Your task to perform on an android device: toggle priority inbox in the gmail app Image 0: 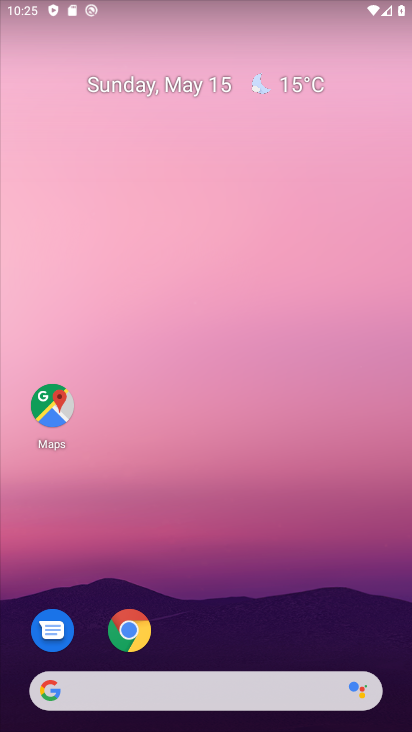
Step 0: drag from (222, 729) to (219, 193)
Your task to perform on an android device: toggle priority inbox in the gmail app Image 1: 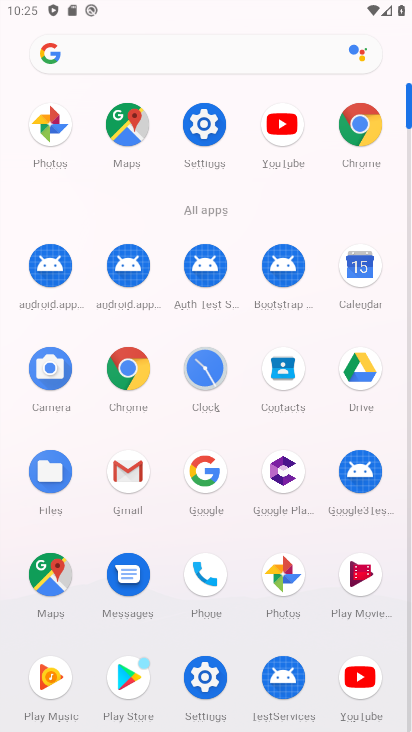
Step 1: click (131, 479)
Your task to perform on an android device: toggle priority inbox in the gmail app Image 2: 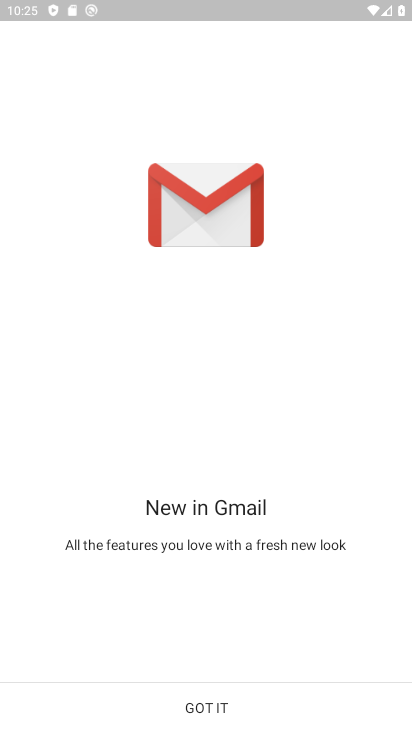
Step 2: click (198, 699)
Your task to perform on an android device: toggle priority inbox in the gmail app Image 3: 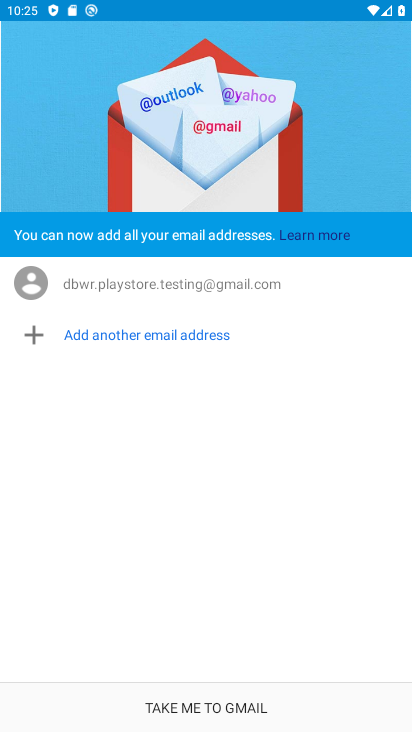
Step 3: click (203, 706)
Your task to perform on an android device: toggle priority inbox in the gmail app Image 4: 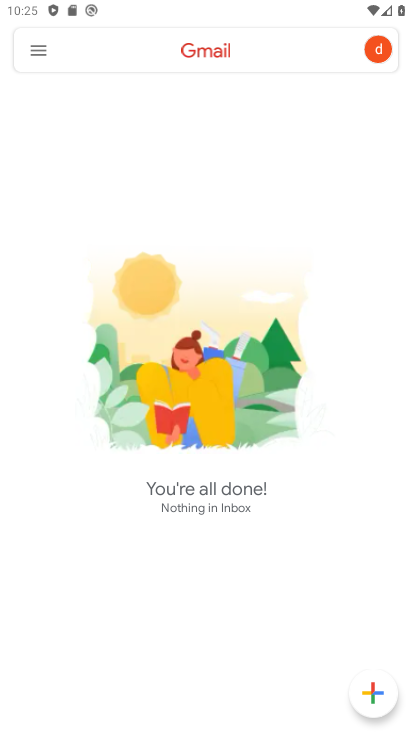
Step 4: click (34, 42)
Your task to perform on an android device: toggle priority inbox in the gmail app Image 5: 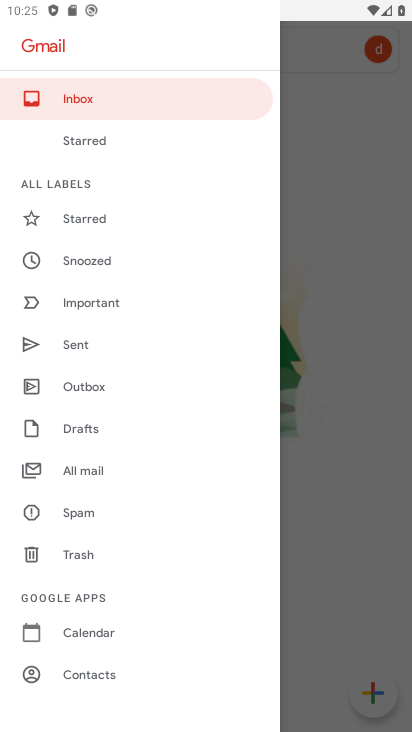
Step 5: drag from (73, 678) to (65, 377)
Your task to perform on an android device: toggle priority inbox in the gmail app Image 6: 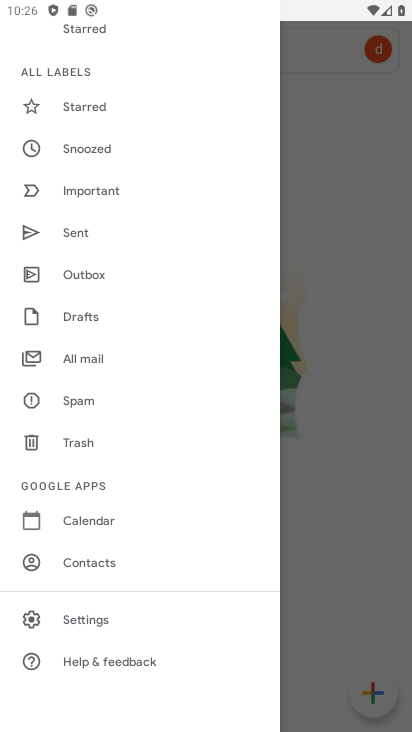
Step 6: click (88, 618)
Your task to perform on an android device: toggle priority inbox in the gmail app Image 7: 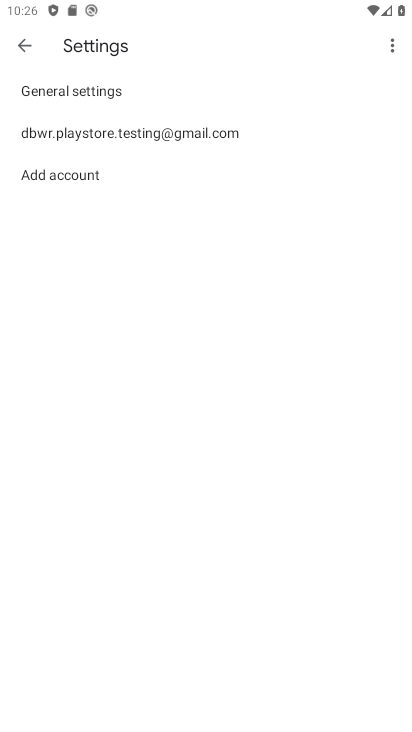
Step 7: click (132, 131)
Your task to perform on an android device: toggle priority inbox in the gmail app Image 8: 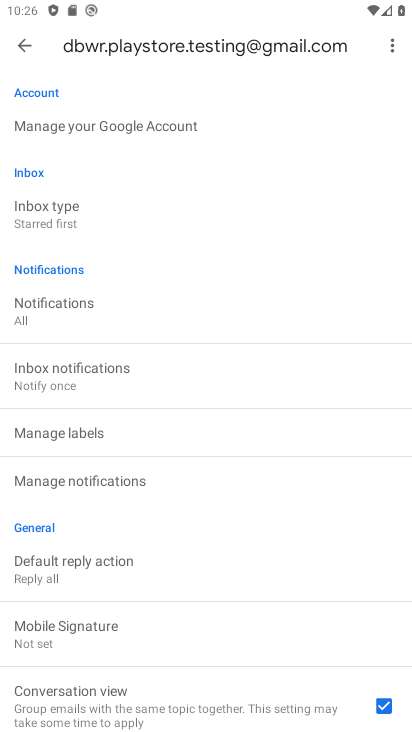
Step 8: drag from (131, 259) to (136, 494)
Your task to perform on an android device: toggle priority inbox in the gmail app Image 9: 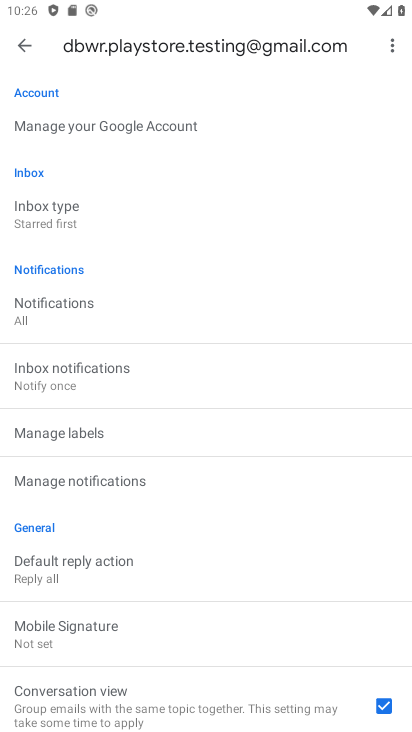
Step 9: click (39, 218)
Your task to perform on an android device: toggle priority inbox in the gmail app Image 10: 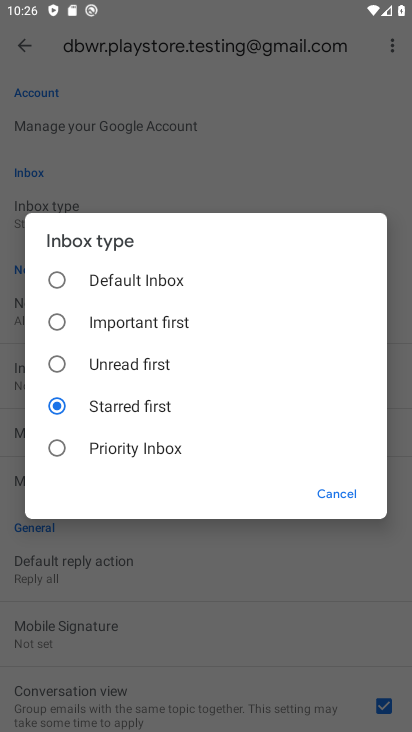
Step 10: click (54, 437)
Your task to perform on an android device: toggle priority inbox in the gmail app Image 11: 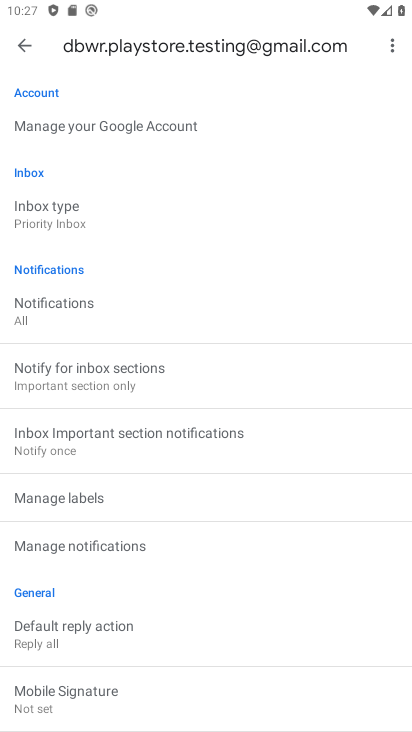
Step 11: task complete